Your task to perform on an android device: install app "Microsoft Excel" Image 0: 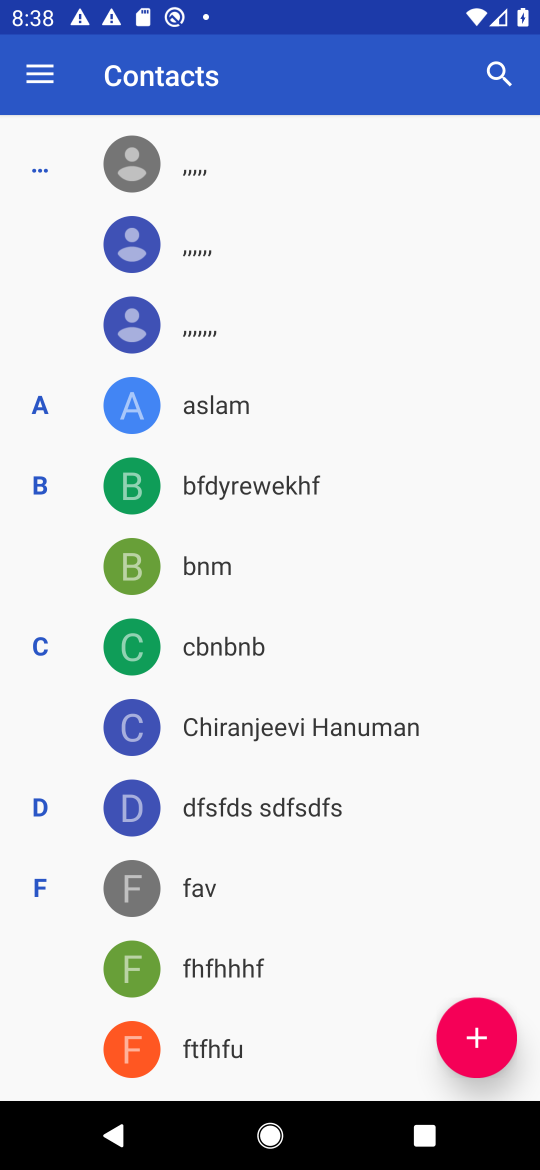
Step 0: press home button
Your task to perform on an android device: install app "Microsoft Excel" Image 1: 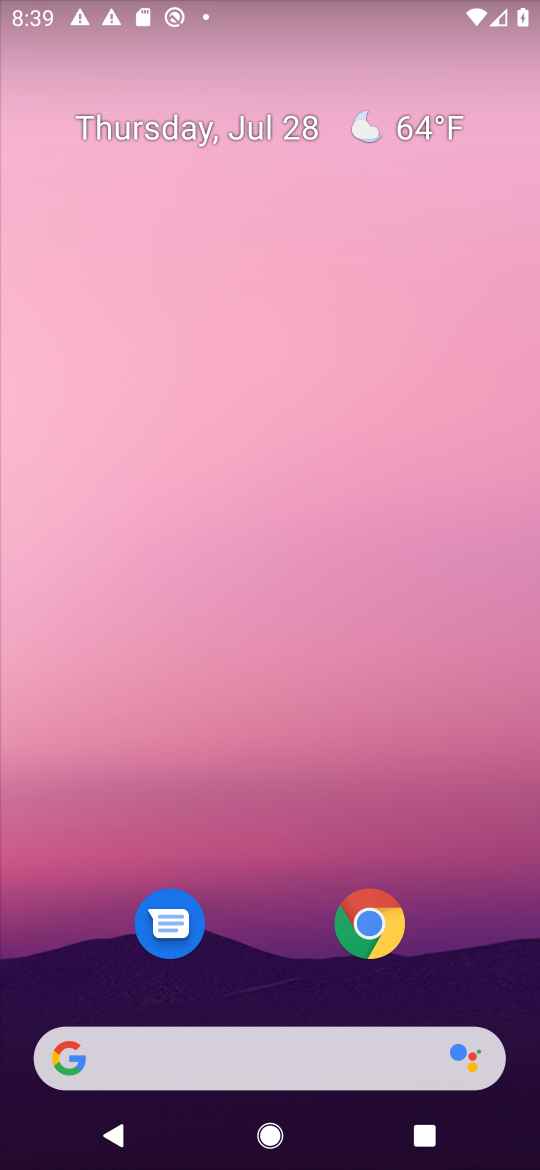
Step 1: drag from (453, 946) to (515, 255)
Your task to perform on an android device: install app "Microsoft Excel" Image 2: 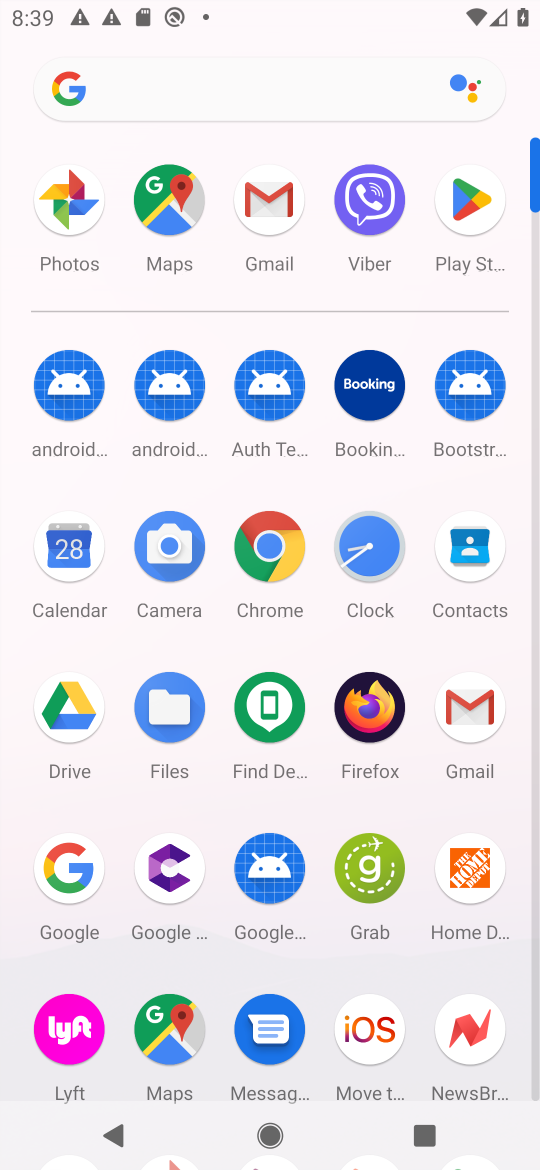
Step 2: click (472, 208)
Your task to perform on an android device: install app "Microsoft Excel" Image 3: 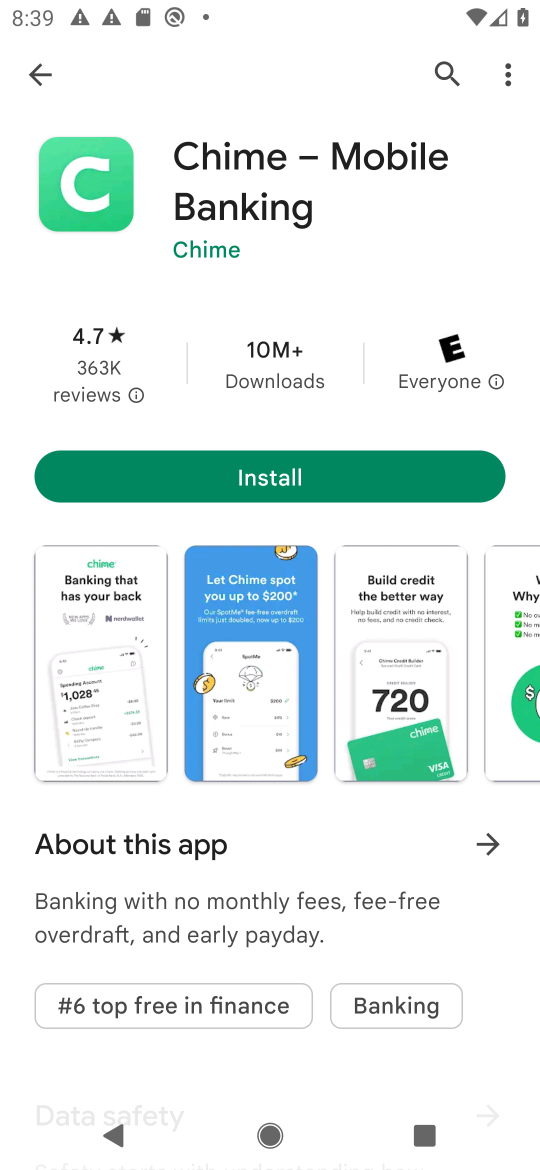
Step 3: click (466, 79)
Your task to perform on an android device: install app "Microsoft Excel" Image 4: 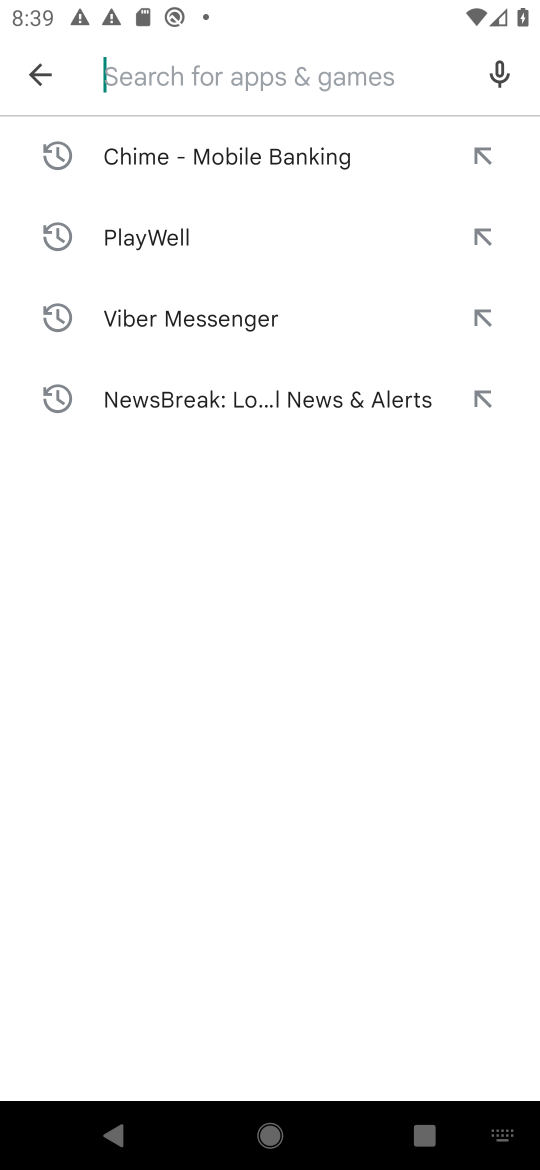
Step 4: type "Microsoft Excel"
Your task to perform on an android device: install app "Microsoft Excel" Image 5: 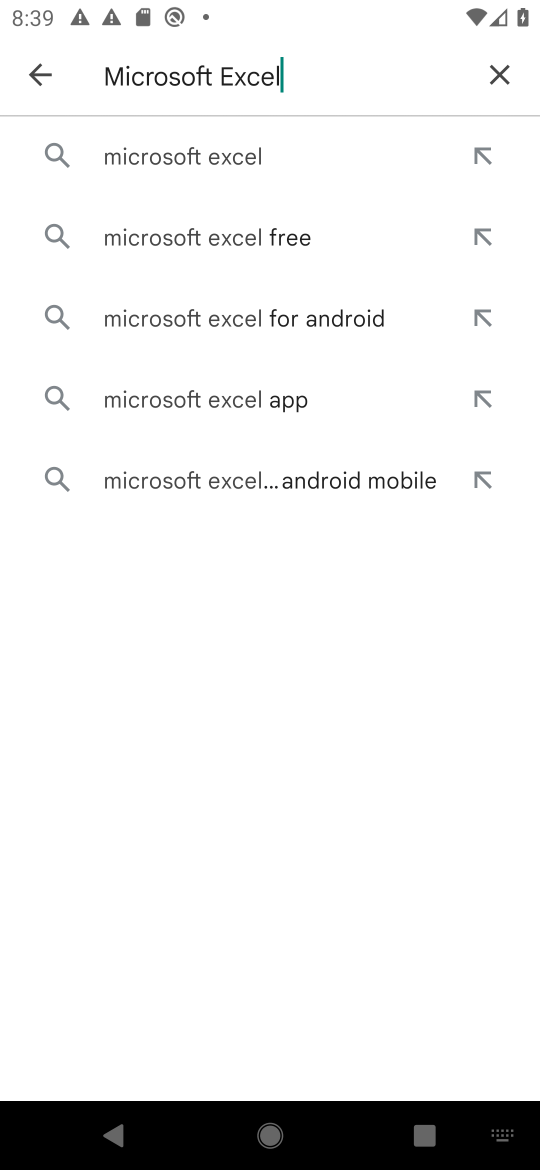
Step 5: press enter
Your task to perform on an android device: install app "Microsoft Excel" Image 6: 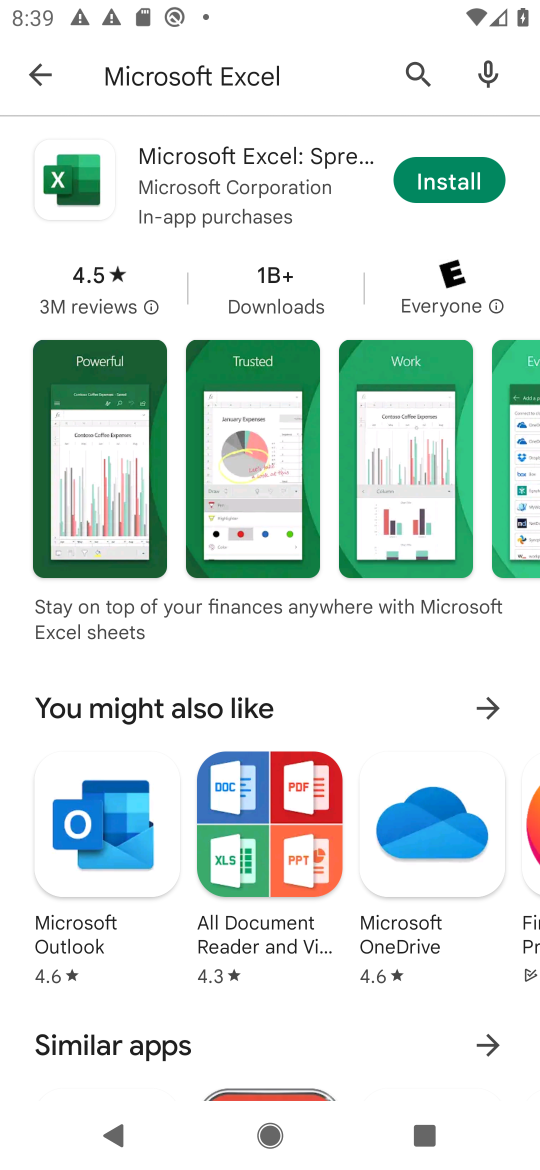
Step 6: click (484, 188)
Your task to perform on an android device: install app "Microsoft Excel" Image 7: 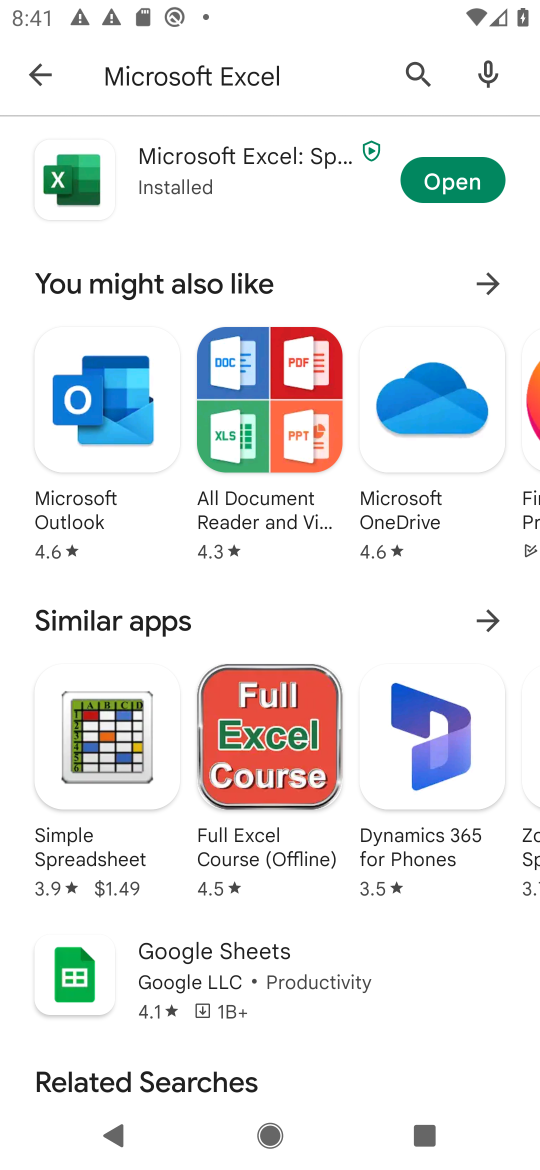
Step 7: task complete